Your task to perform on an android device: Empty the shopping cart on amazon.com. Image 0: 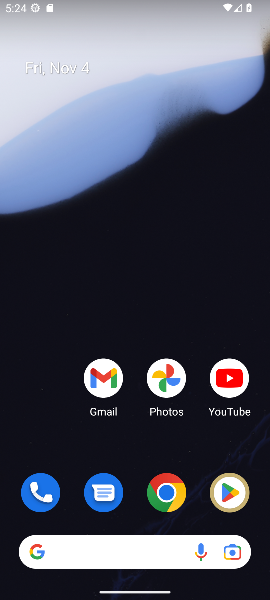
Step 0: drag from (135, 449) to (128, 42)
Your task to perform on an android device: Empty the shopping cart on amazon.com. Image 1: 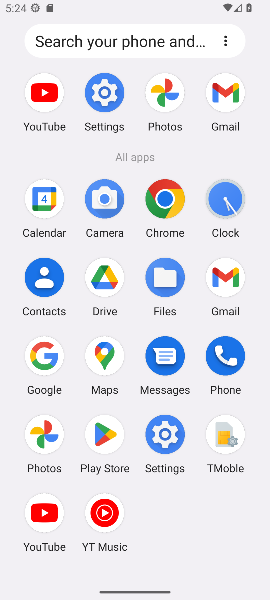
Step 1: click (167, 205)
Your task to perform on an android device: Empty the shopping cart on amazon.com. Image 2: 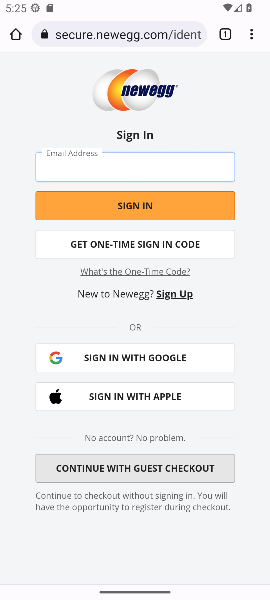
Step 2: click (161, 34)
Your task to perform on an android device: Empty the shopping cart on amazon.com. Image 3: 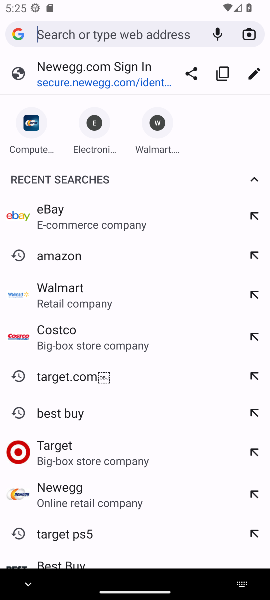
Step 3: type "amazon.com"
Your task to perform on an android device: Empty the shopping cart on amazon.com. Image 4: 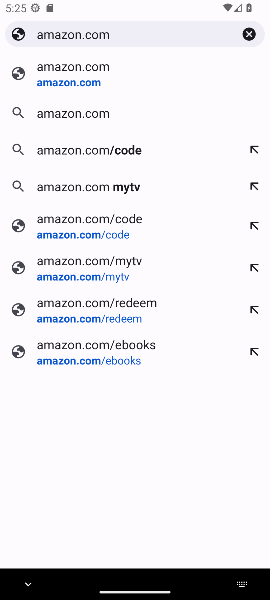
Step 4: press enter
Your task to perform on an android device: Empty the shopping cart on amazon.com. Image 5: 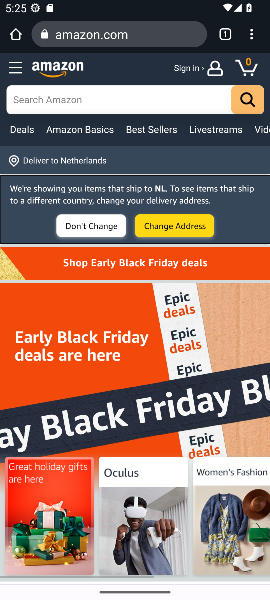
Step 5: click (249, 64)
Your task to perform on an android device: Empty the shopping cart on amazon.com. Image 6: 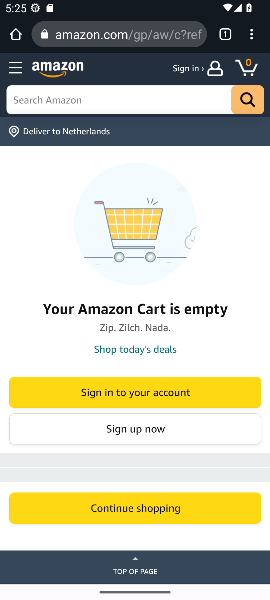
Step 6: task complete